Your task to perform on an android device: turn off location Image 0: 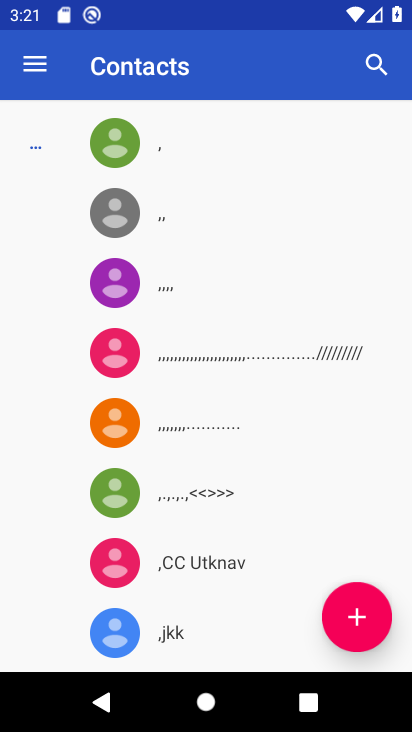
Step 0: press home button
Your task to perform on an android device: turn off location Image 1: 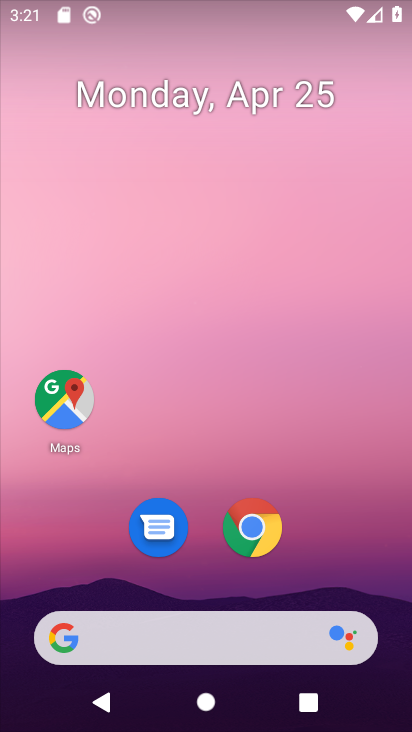
Step 1: drag from (385, 607) to (359, 56)
Your task to perform on an android device: turn off location Image 2: 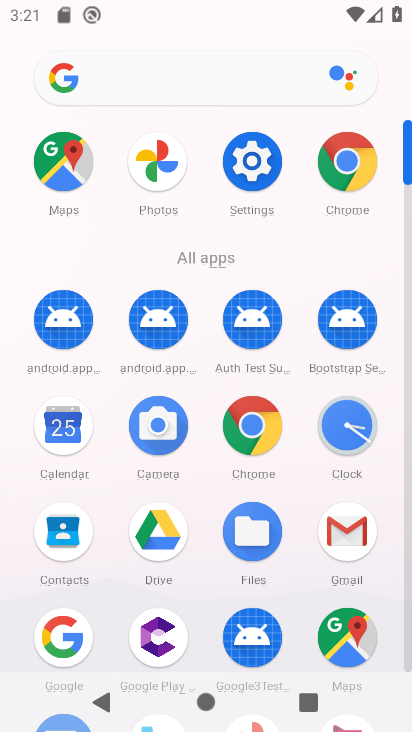
Step 2: click (404, 651)
Your task to perform on an android device: turn off location Image 3: 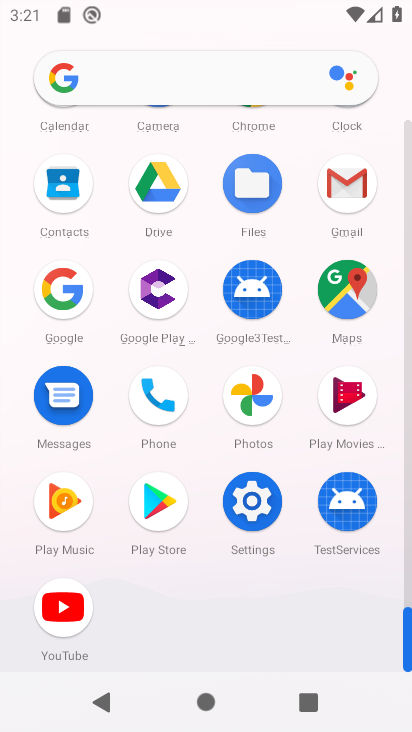
Step 3: click (249, 500)
Your task to perform on an android device: turn off location Image 4: 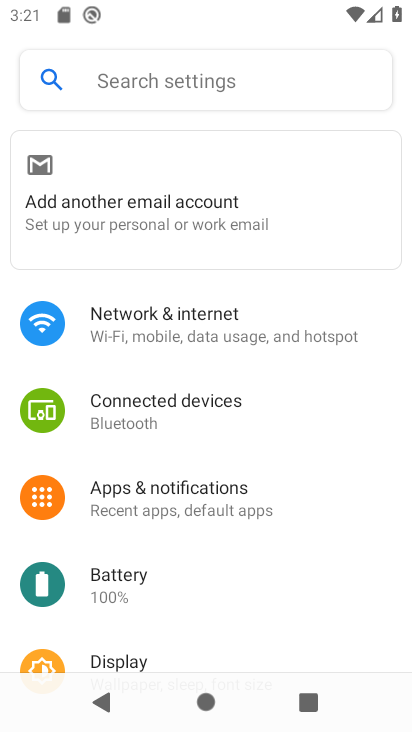
Step 4: drag from (313, 613) to (335, 329)
Your task to perform on an android device: turn off location Image 5: 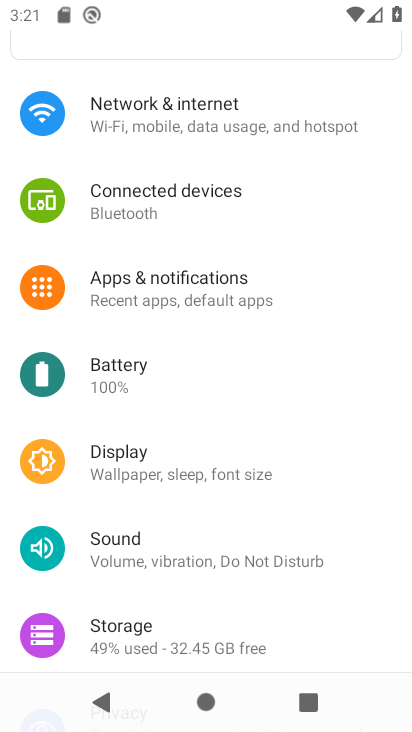
Step 5: drag from (310, 576) to (319, 217)
Your task to perform on an android device: turn off location Image 6: 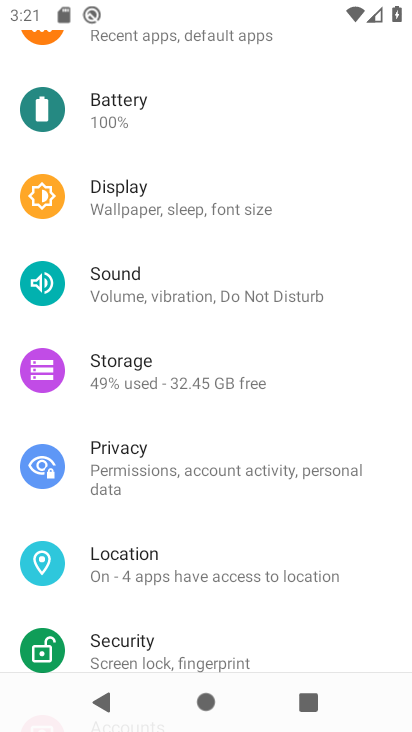
Step 6: click (163, 565)
Your task to perform on an android device: turn off location Image 7: 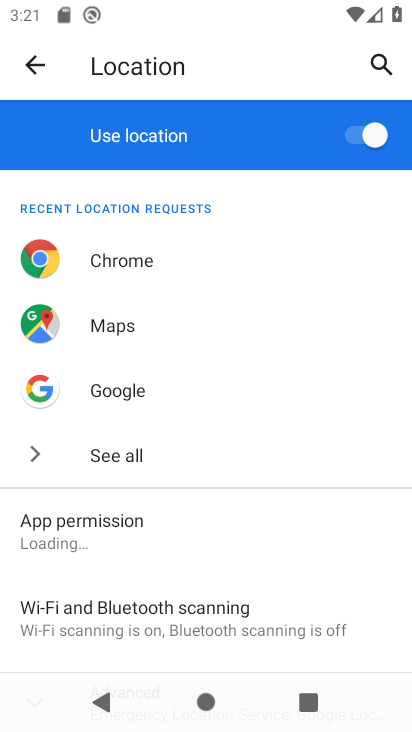
Step 7: click (354, 138)
Your task to perform on an android device: turn off location Image 8: 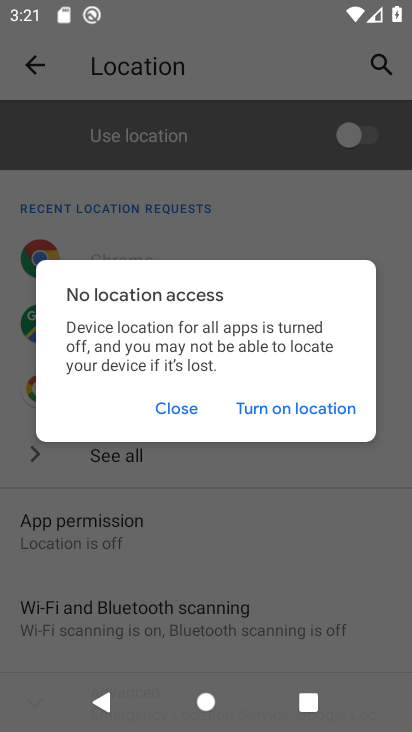
Step 8: click (180, 409)
Your task to perform on an android device: turn off location Image 9: 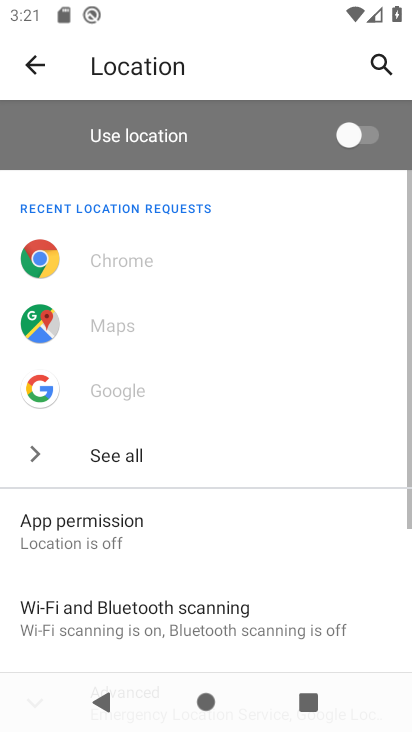
Step 9: task complete